Your task to perform on an android device: turn off smart reply in the gmail app Image 0: 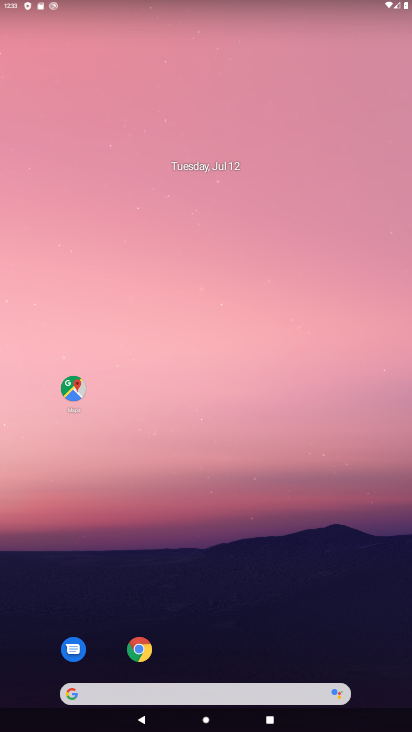
Step 0: drag from (218, 641) to (166, 140)
Your task to perform on an android device: turn off smart reply in the gmail app Image 1: 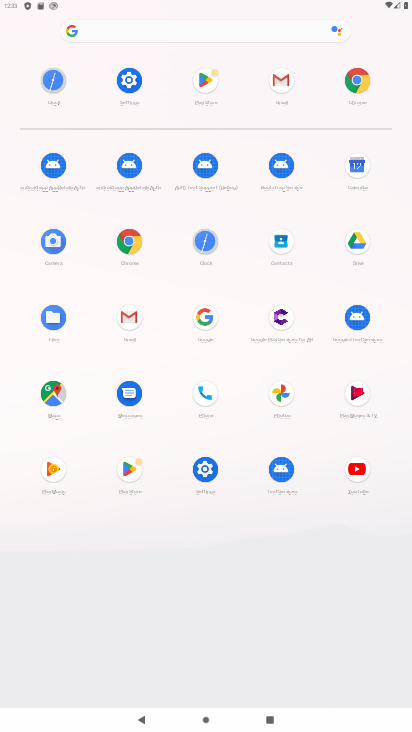
Step 1: click (134, 323)
Your task to perform on an android device: turn off smart reply in the gmail app Image 2: 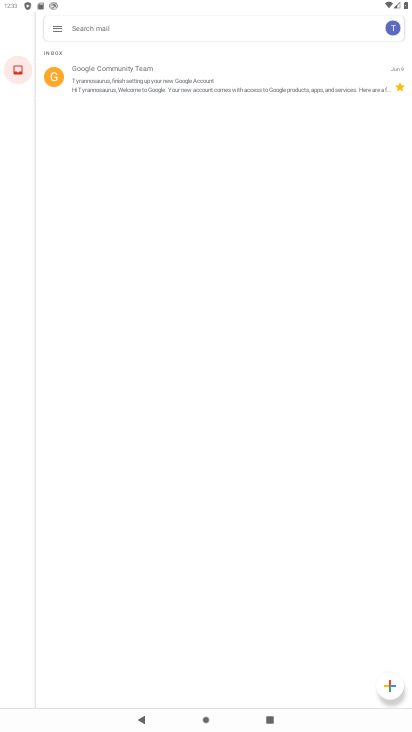
Step 2: click (55, 27)
Your task to perform on an android device: turn off smart reply in the gmail app Image 3: 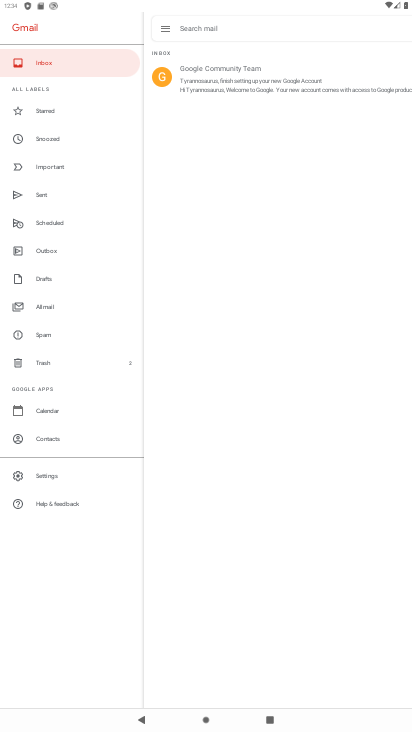
Step 3: click (56, 466)
Your task to perform on an android device: turn off smart reply in the gmail app Image 4: 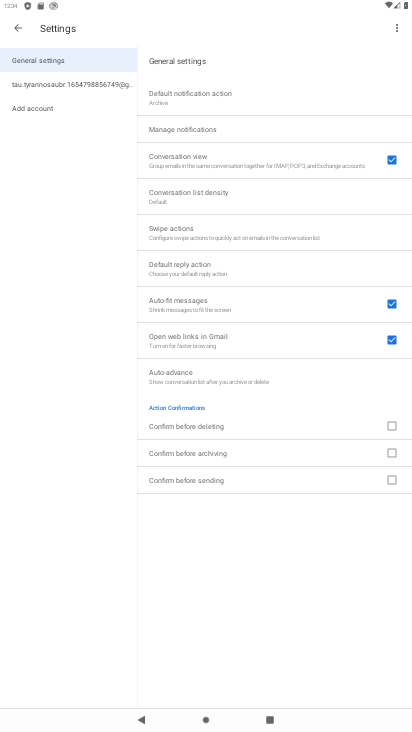
Step 4: click (28, 89)
Your task to perform on an android device: turn off smart reply in the gmail app Image 5: 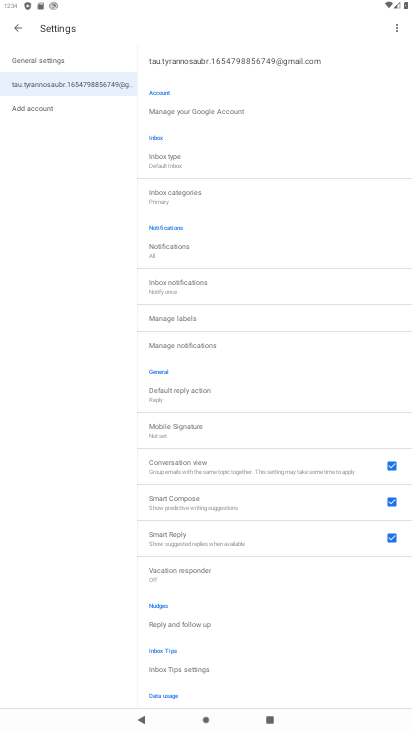
Step 5: click (376, 538)
Your task to perform on an android device: turn off smart reply in the gmail app Image 6: 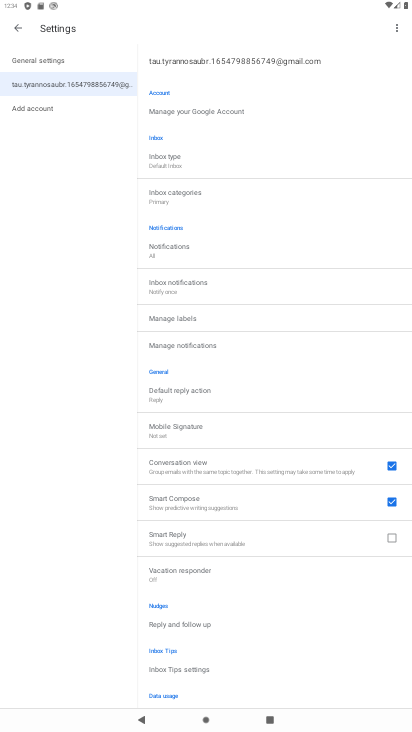
Step 6: task complete